Your task to perform on an android device: What is the news today? Image 0: 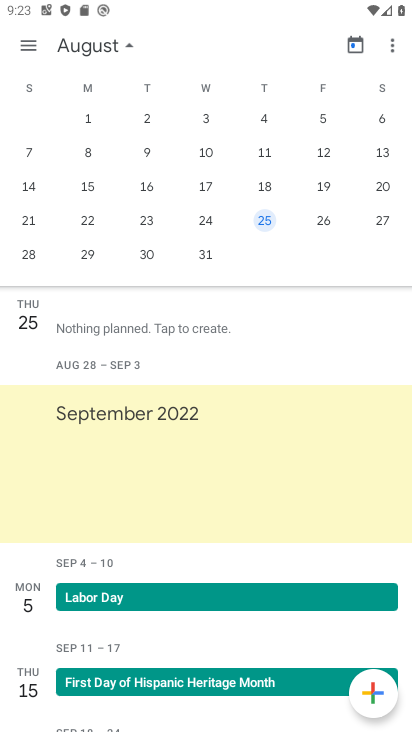
Step 0: press home button
Your task to perform on an android device: What is the news today? Image 1: 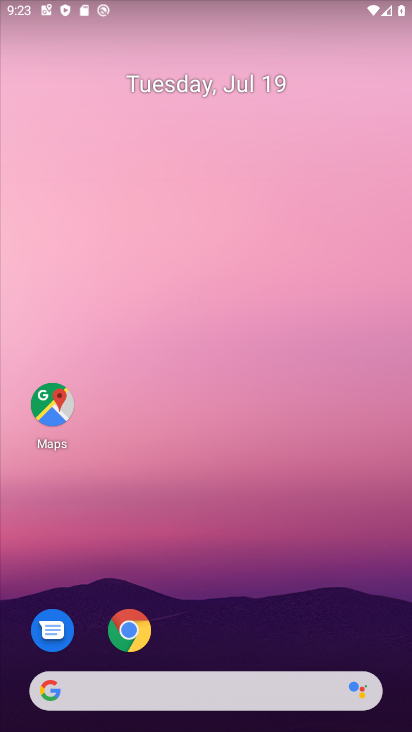
Step 1: drag from (222, 647) to (247, 74)
Your task to perform on an android device: What is the news today? Image 2: 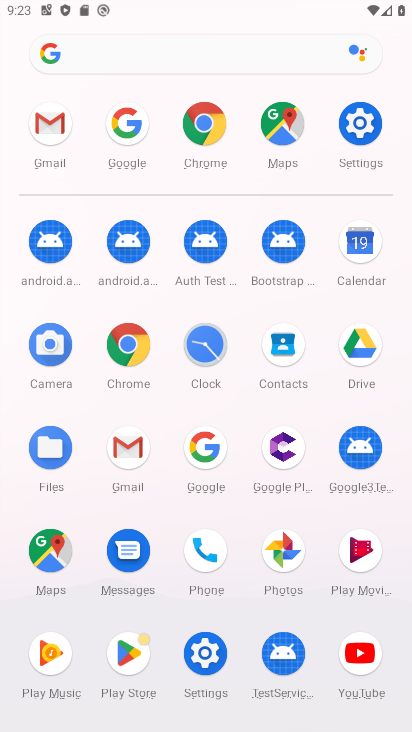
Step 2: click (205, 453)
Your task to perform on an android device: What is the news today? Image 3: 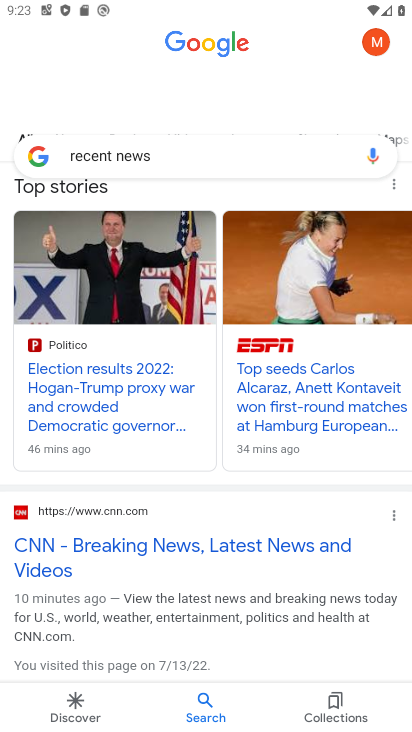
Step 3: click (252, 149)
Your task to perform on an android device: What is the news today? Image 4: 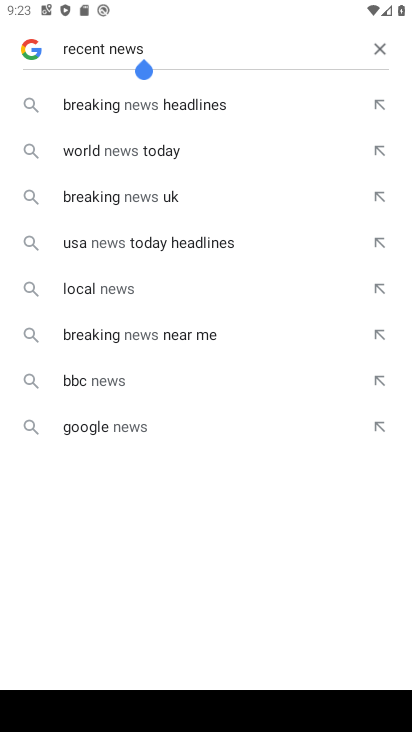
Step 4: click (377, 50)
Your task to perform on an android device: What is the news today? Image 5: 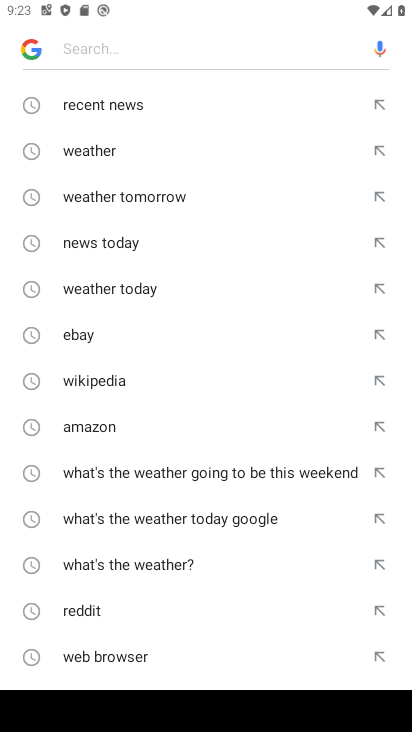
Step 5: type "news today"
Your task to perform on an android device: What is the news today? Image 6: 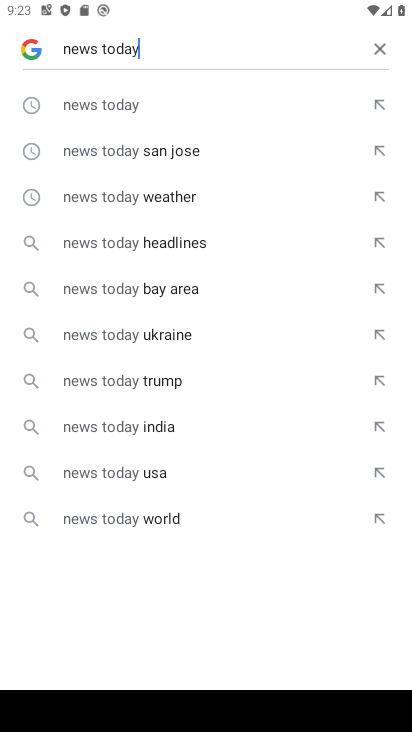
Step 6: click (108, 102)
Your task to perform on an android device: What is the news today? Image 7: 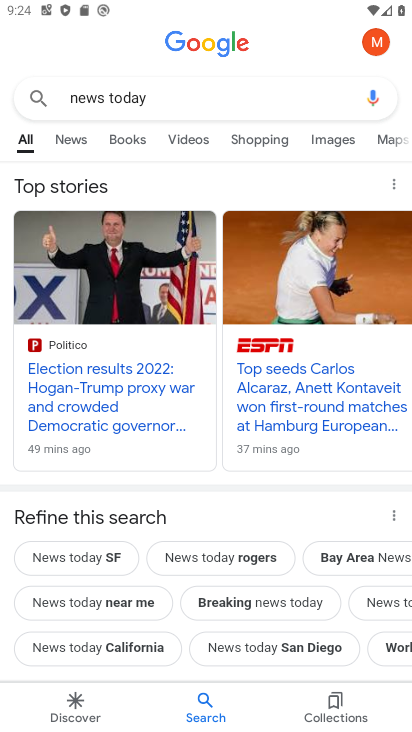
Step 7: task complete